Your task to perform on an android device: Open the calendar app, open the side menu, and click the "Day" option Image 0: 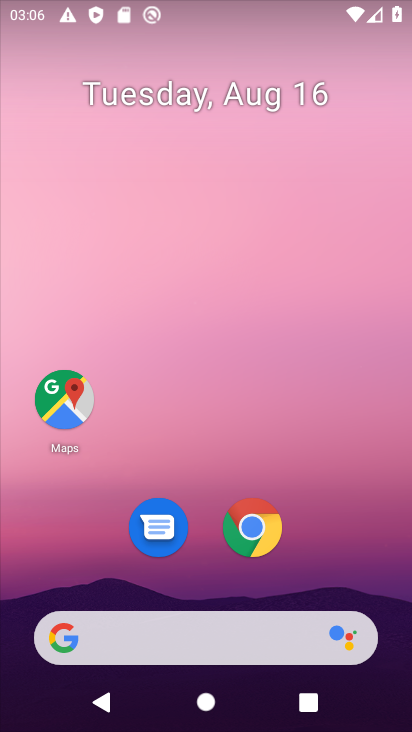
Step 0: press home button
Your task to perform on an android device: Open the calendar app, open the side menu, and click the "Day" option Image 1: 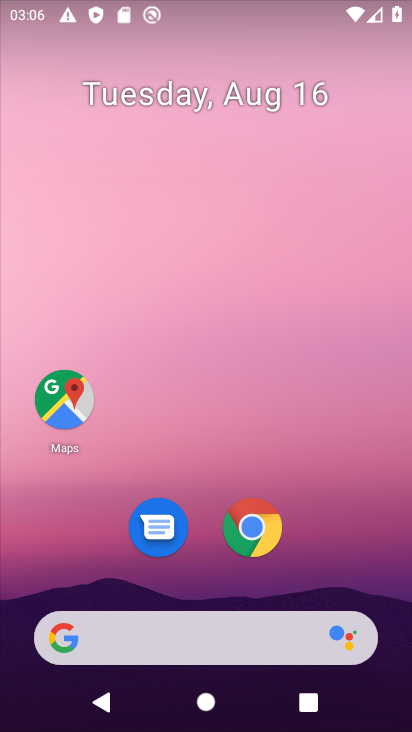
Step 1: drag from (209, 585) to (213, 79)
Your task to perform on an android device: Open the calendar app, open the side menu, and click the "Day" option Image 2: 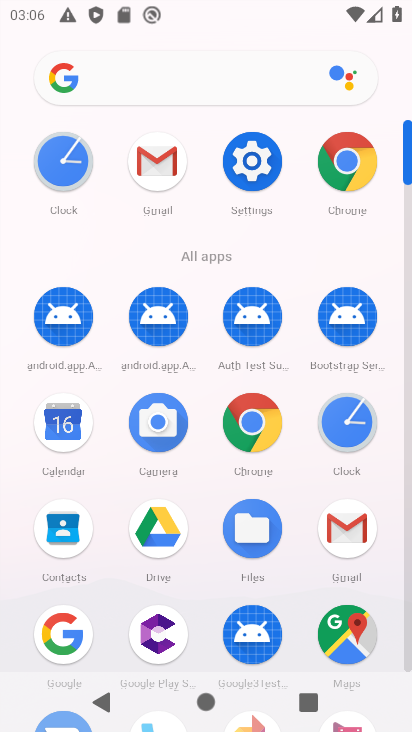
Step 2: click (59, 422)
Your task to perform on an android device: Open the calendar app, open the side menu, and click the "Day" option Image 3: 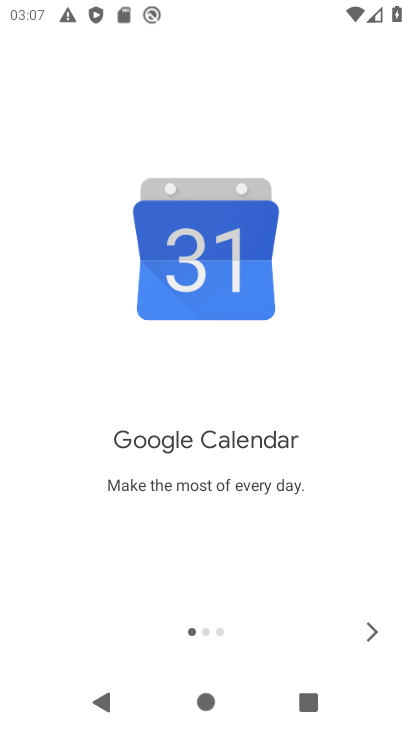
Step 3: click (376, 627)
Your task to perform on an android device: Open the calendar app, open the side menu, and click the "Day" option Image 4: 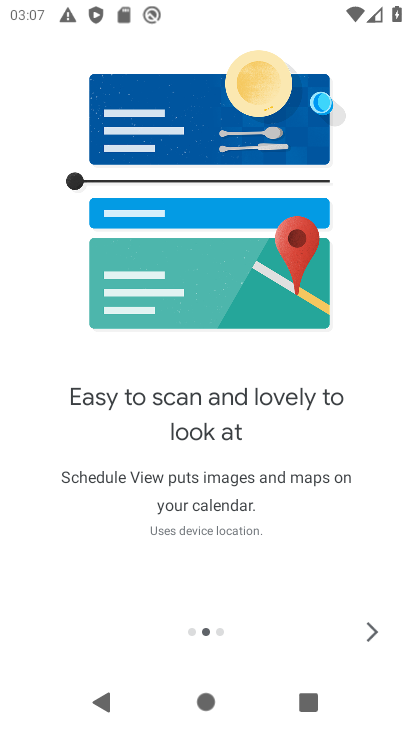
Step 4: click (377, 630)
Your task to perform on an android device: Open the calendar app, open the side menu, and click the "Day" option Image 5: 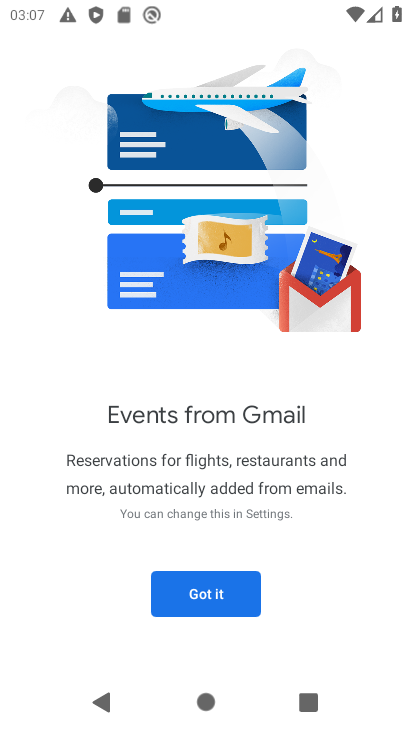
Step 5: click (209, 596)
Your task to perform on an android device: Open the calendar app, open the side menu, and click the "Day" option Image 6: 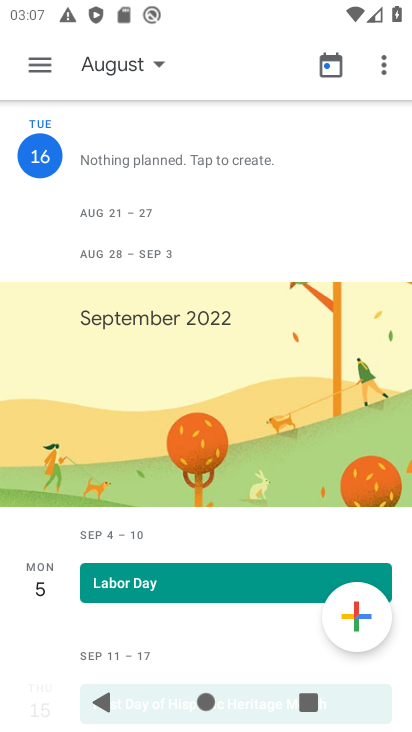
Step 6: click (35, 73)
Your task to perform on an android device: Open the calendar app, open the side menu, and click the "Day" option Image 7: 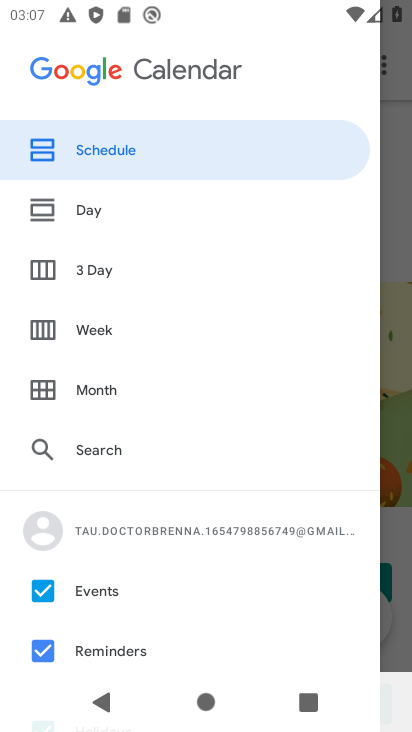
Step 7: click (84, 204)
Your task to perform on an android device: Open the calendar app, open the side menu, and click the "Day" option Image 8: 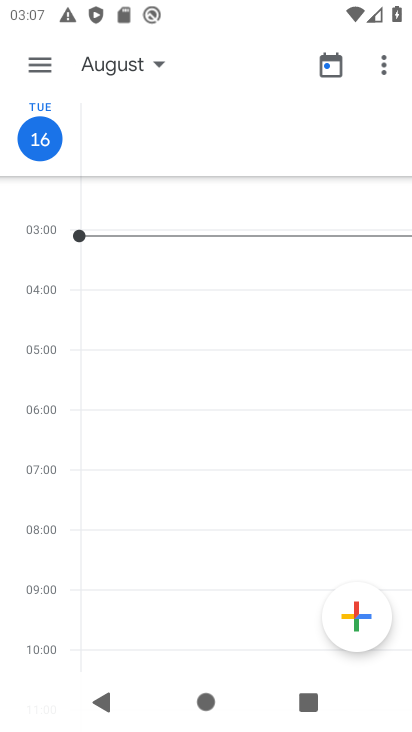
Step 8: task complete